Your task to perform on an android device: Open internet settings Image 0: 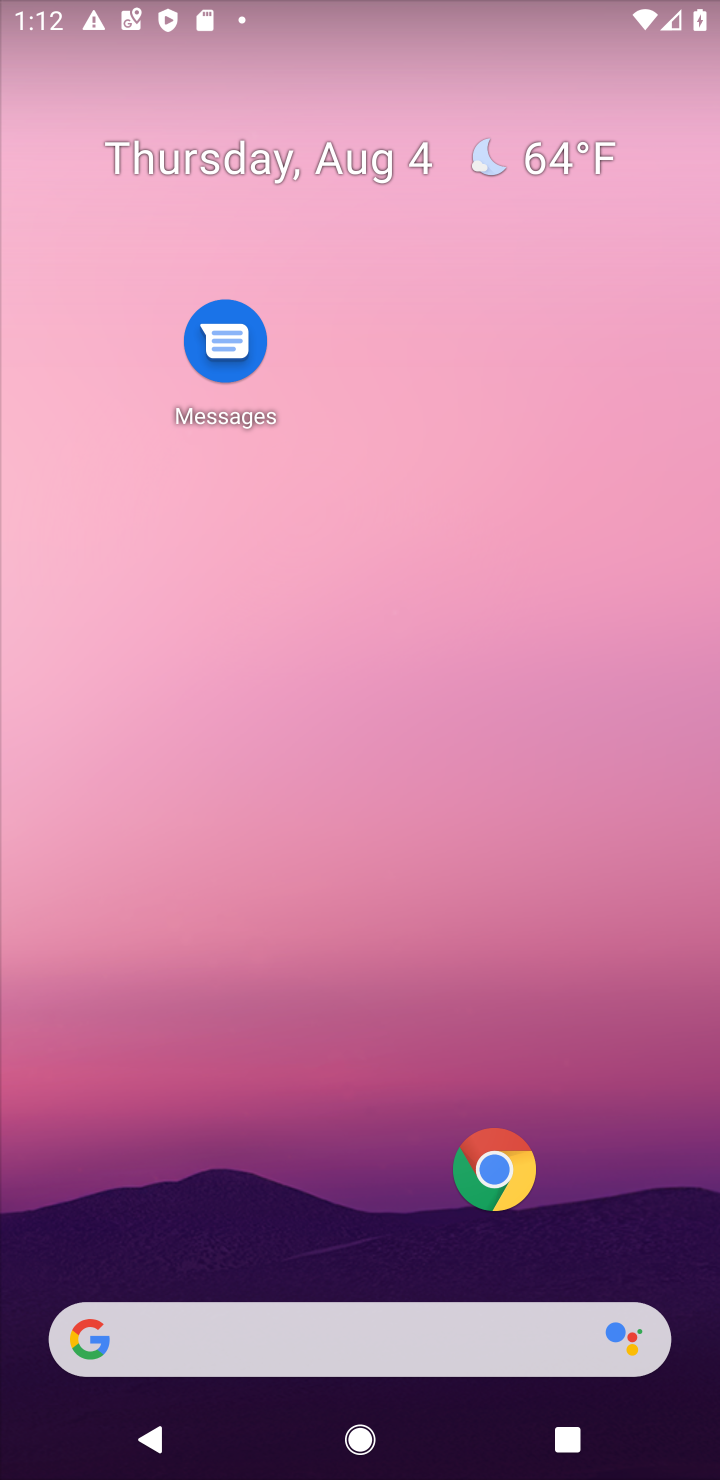
Step 0: click (309, 237)
Your task to perform on an android device: Open internet settings Image 1: 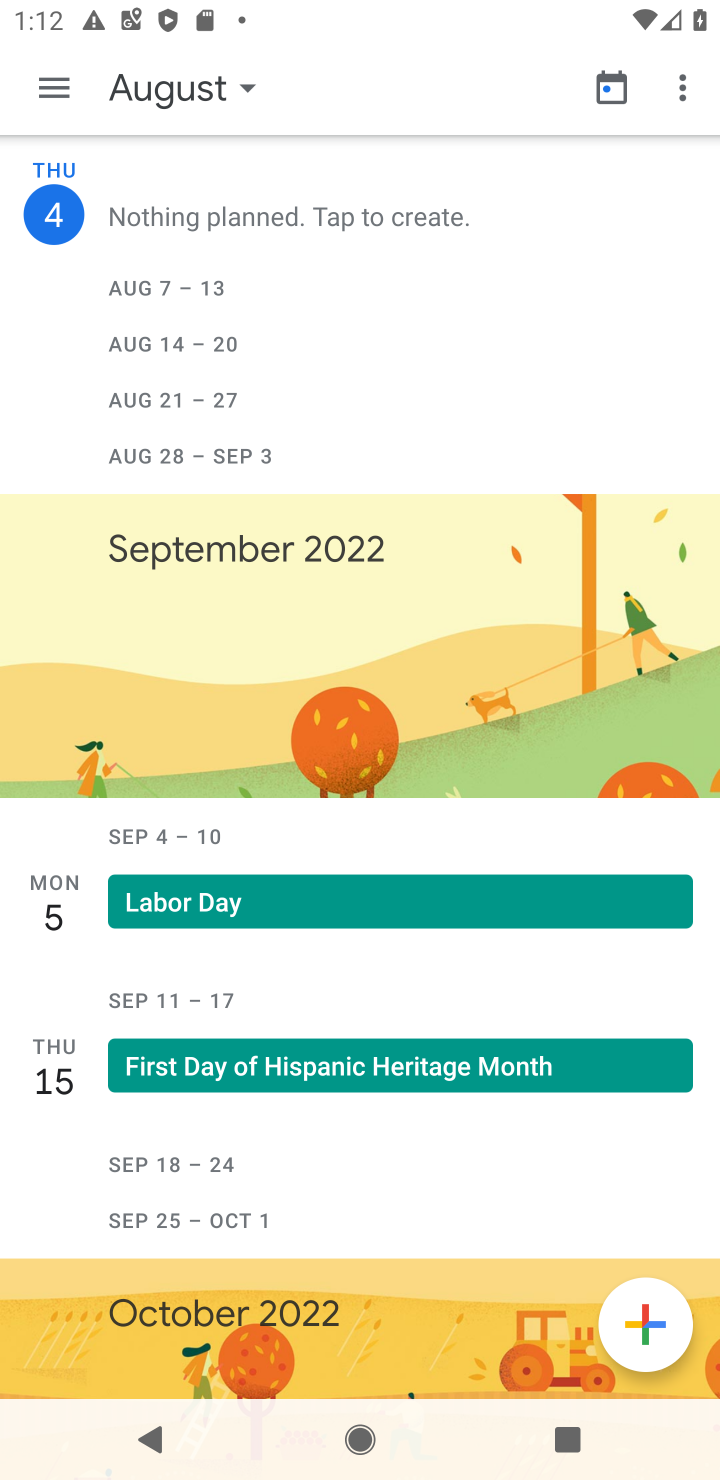
Step 1: press home button
Your task to perform on an android device: Open internet settings Image 2: 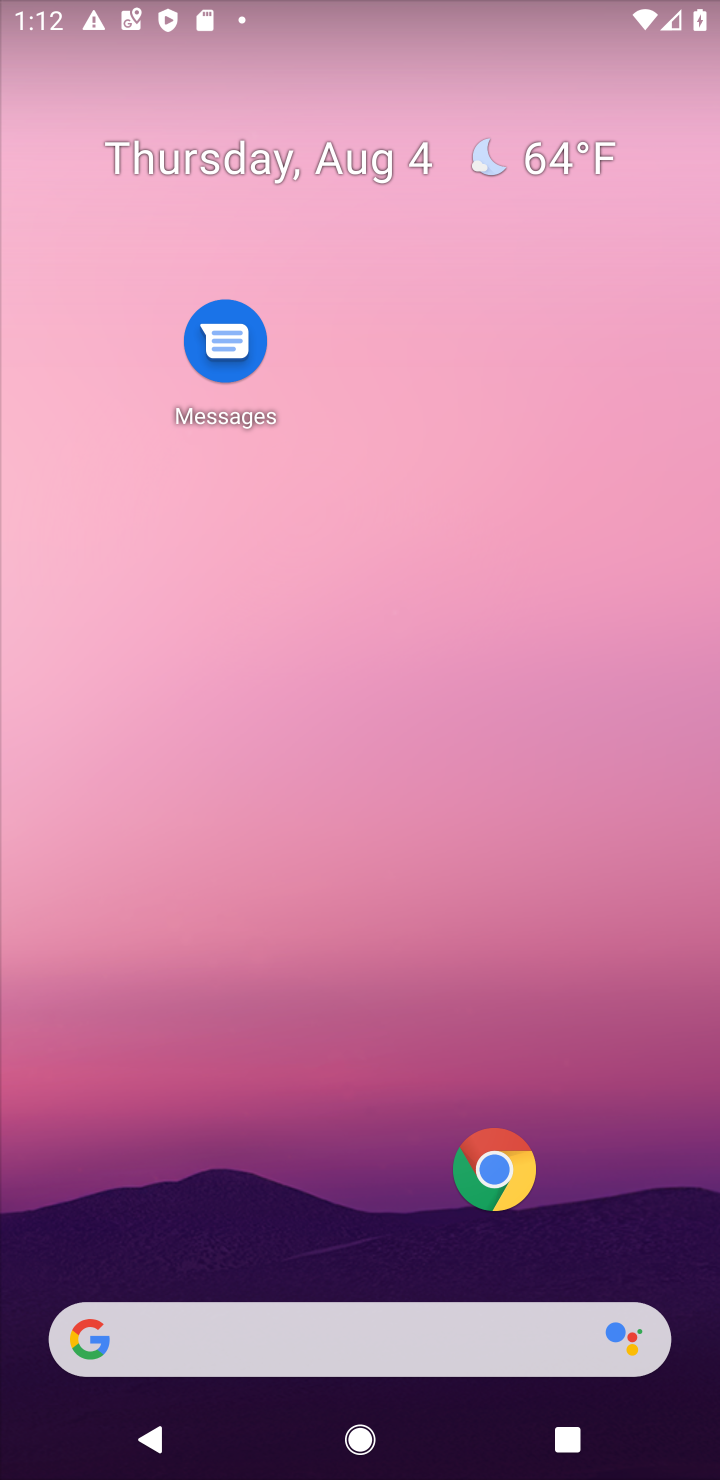
Step 2: drag from (331, 1136) to (330, 10)
Your task to perform on an android device: Open internet settings Image 3: 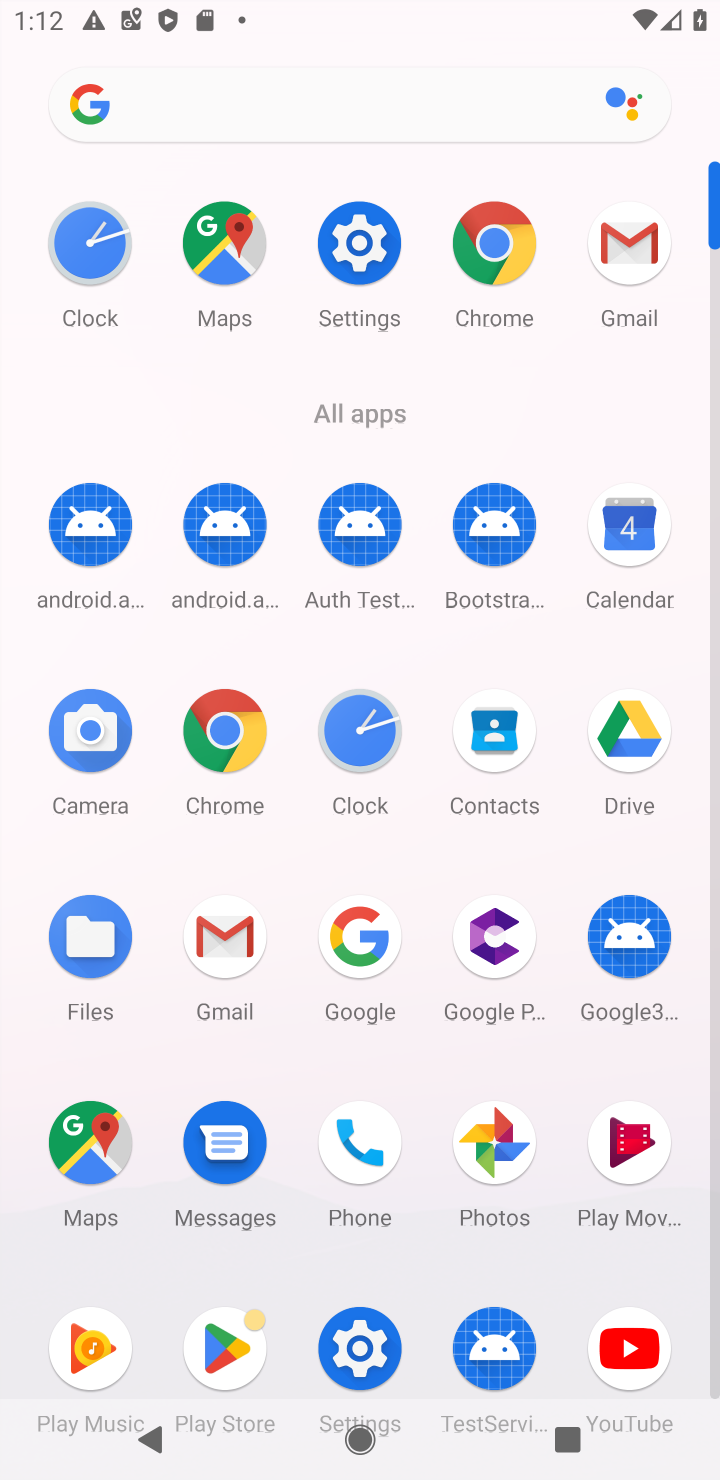
Step 3: click (372, 281)
Your task to perform on an android device: Open internet settings Image 4: 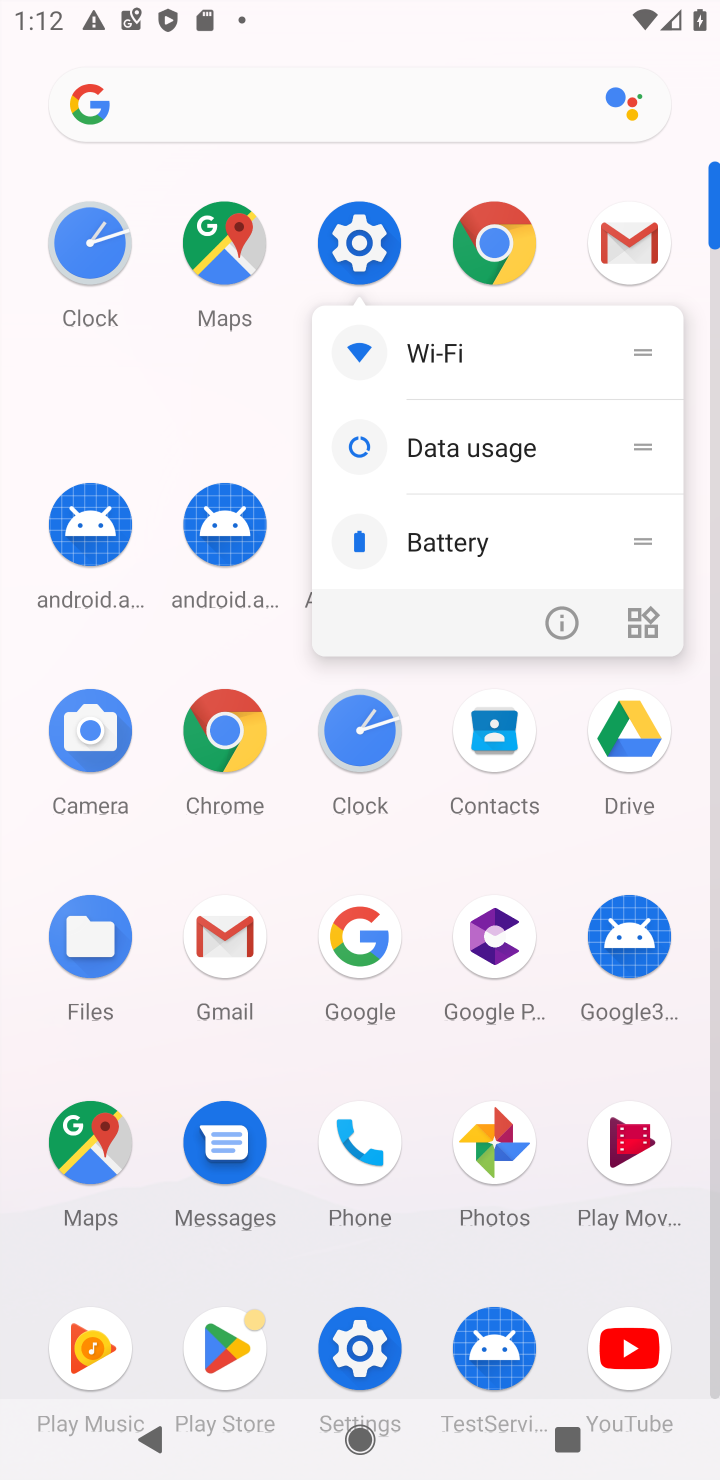
Step 4: click (351, 257)
Your task to perform on an android device: Open internet settings Image 5: 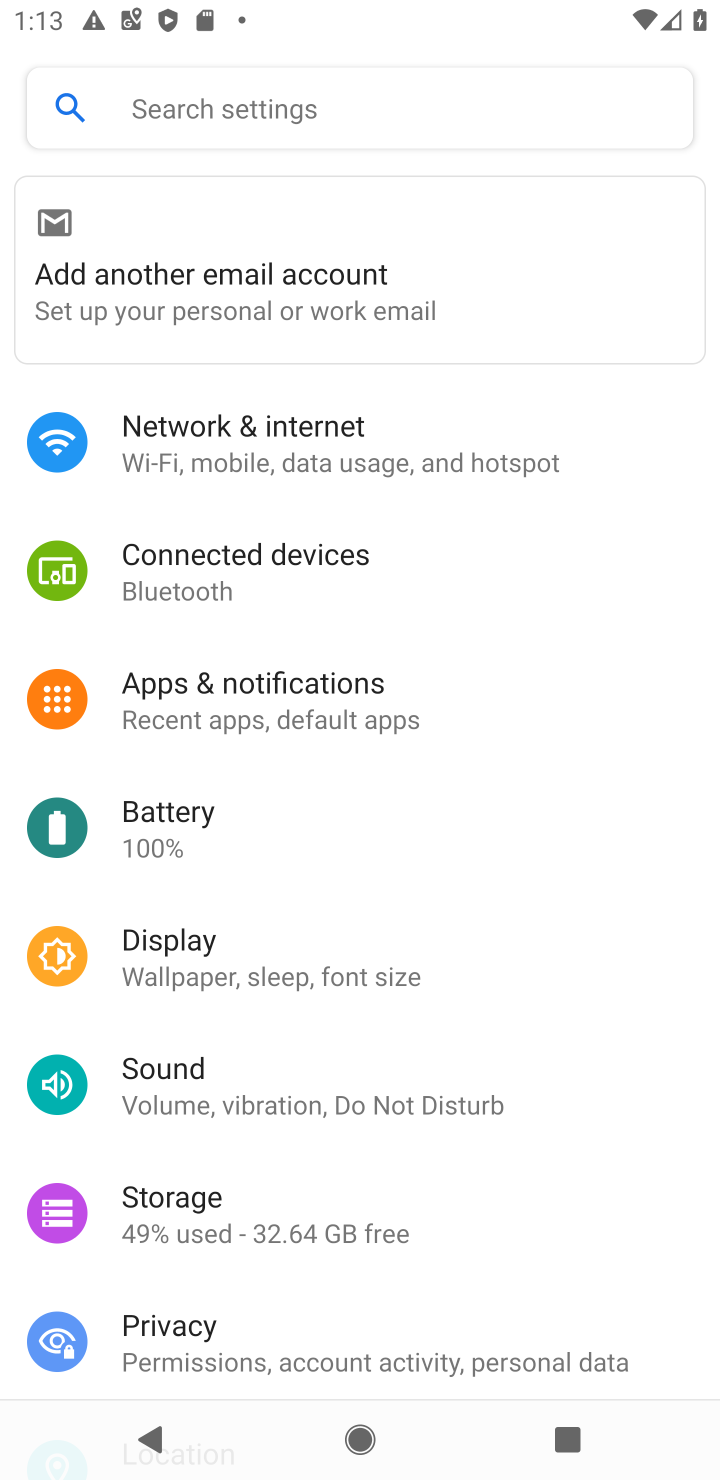
Step 5: click (255, 444)
Your task to perform on an android device: Open internet settings Image 6: 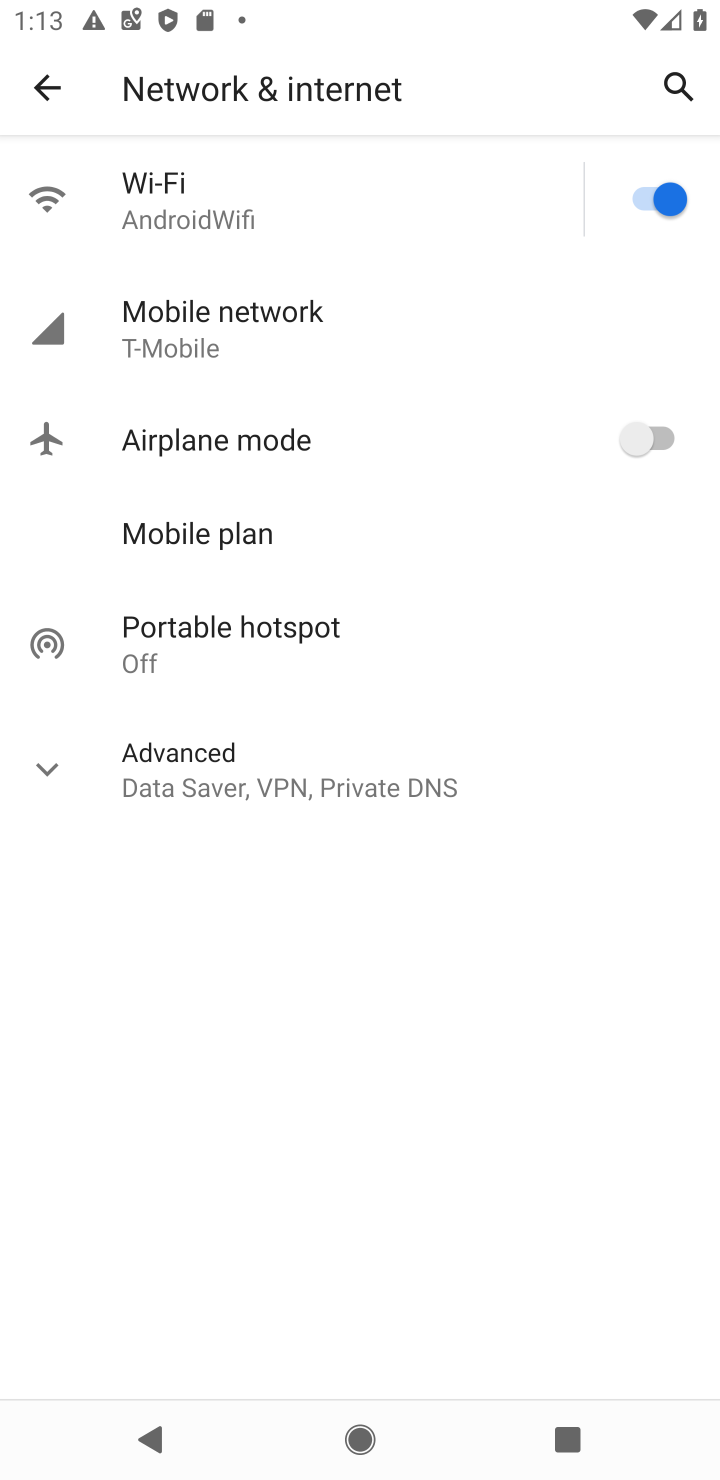
Step 6: task complete